Your task to perform on an android device: What's on my calendar tomorrow? Image 0: 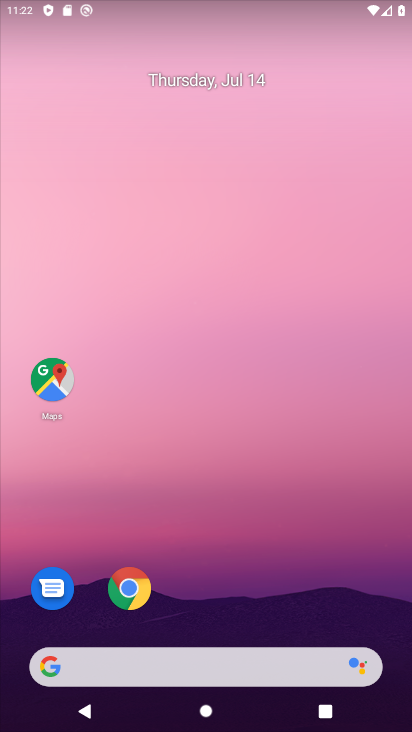
Step 0: drag from (249, 611) to (215, 172)
Your task to perform on an android device: What's on my calendar tomorrow? Image 1: 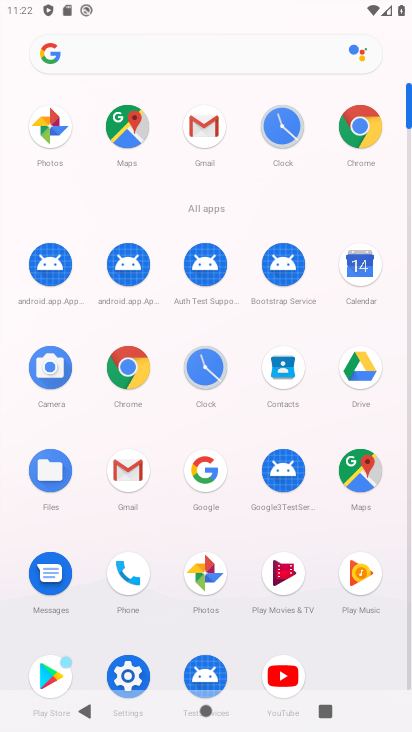
Step 1: click (359, 267)
Your task to perform on an android device: What's on my calendar tomorrow? Image 2: 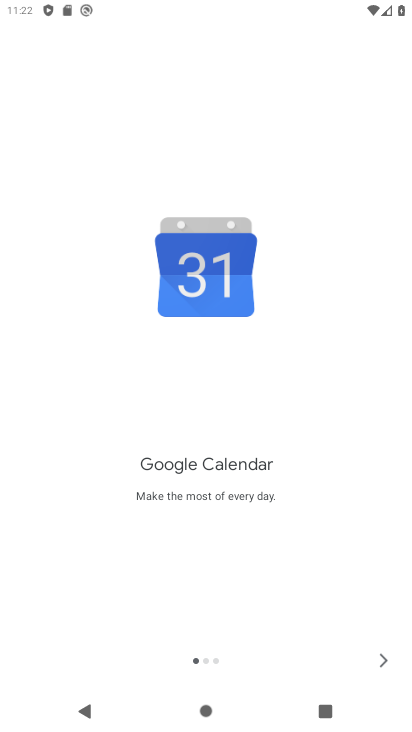
Step 2: click (385, 656)
Your task to perform on an android device: What's on my calendar tomorrow? Image 3: 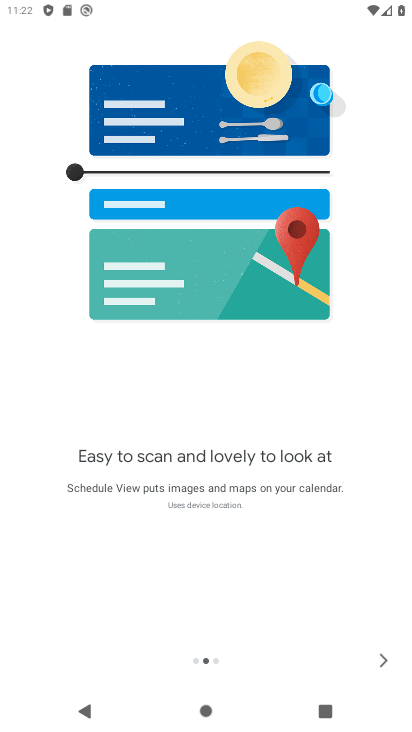
Step 3: click (385, 656)
Your task to perform on an android device: What's on my calendar tomorrow? Image 4: 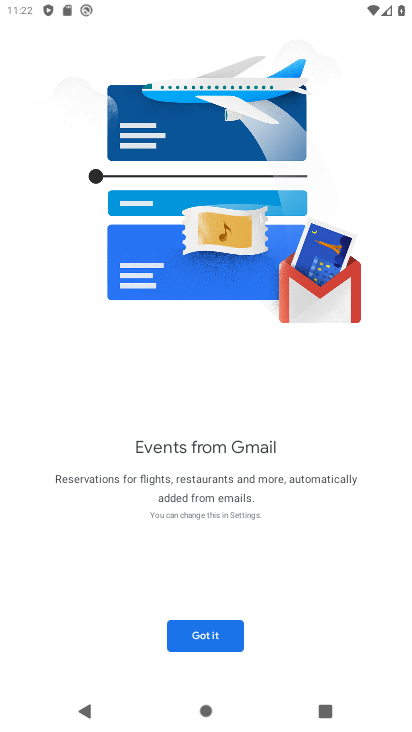
Step 4: click (385, 656)
Your task to perform on an android device: What's on my calendar tomorrow? Image 5: 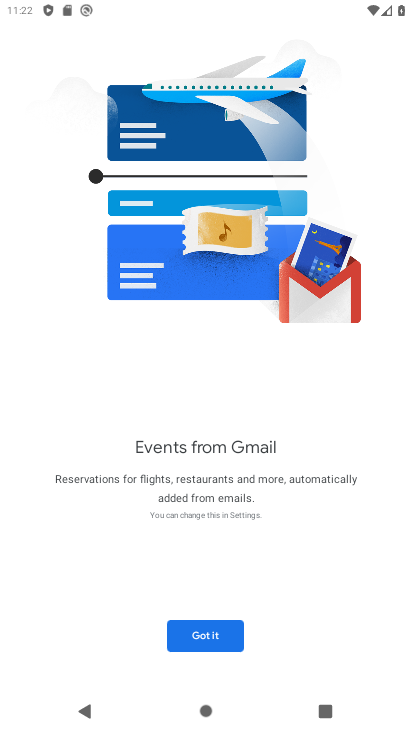
Step 5: click (186, 629)
Your task to perform on an android device: What's on my calendar tomorrow? Image 6: 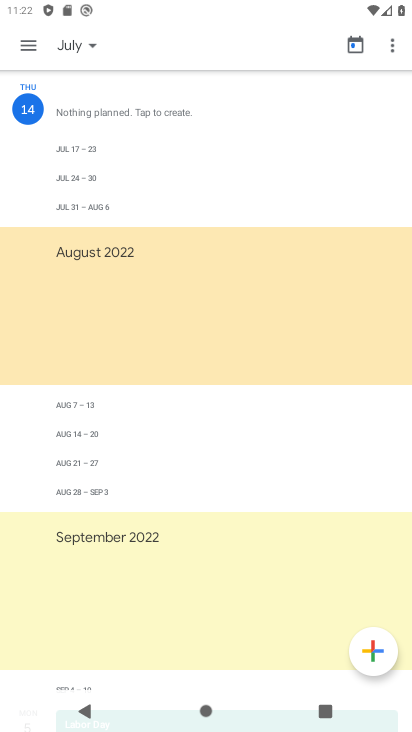
Step 6: click (25, 54)
Your task to perform on an android device: What's on my calendar tomorrow? Image 7: 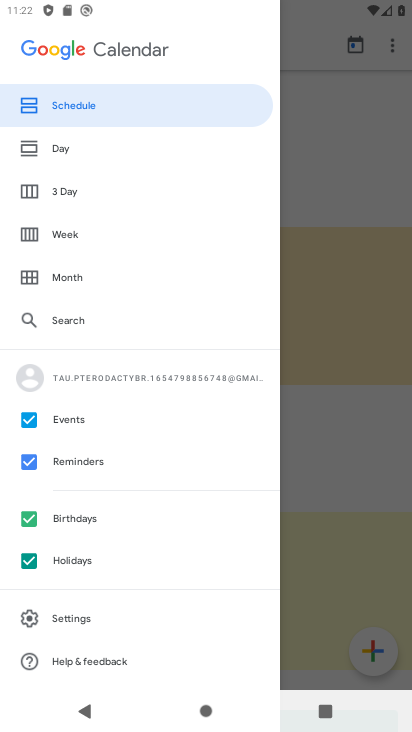
Step 7: click (59, 146)
Your task to perform on an android device: What's on my calendar tomorrow? Image 8: 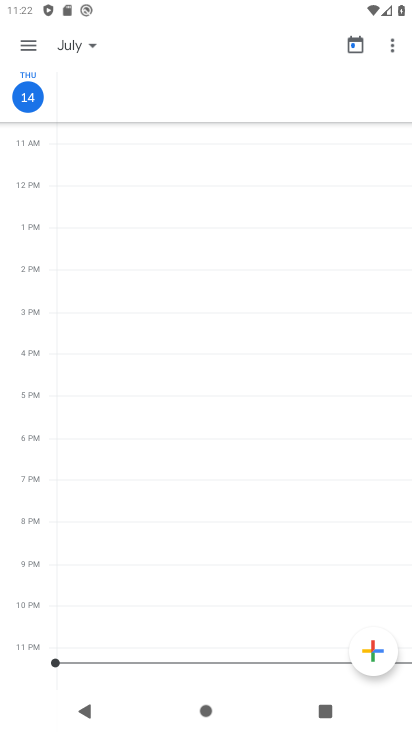
Step 8: task complete